Your task to perform on an android device: set the stopwatch Image 0: 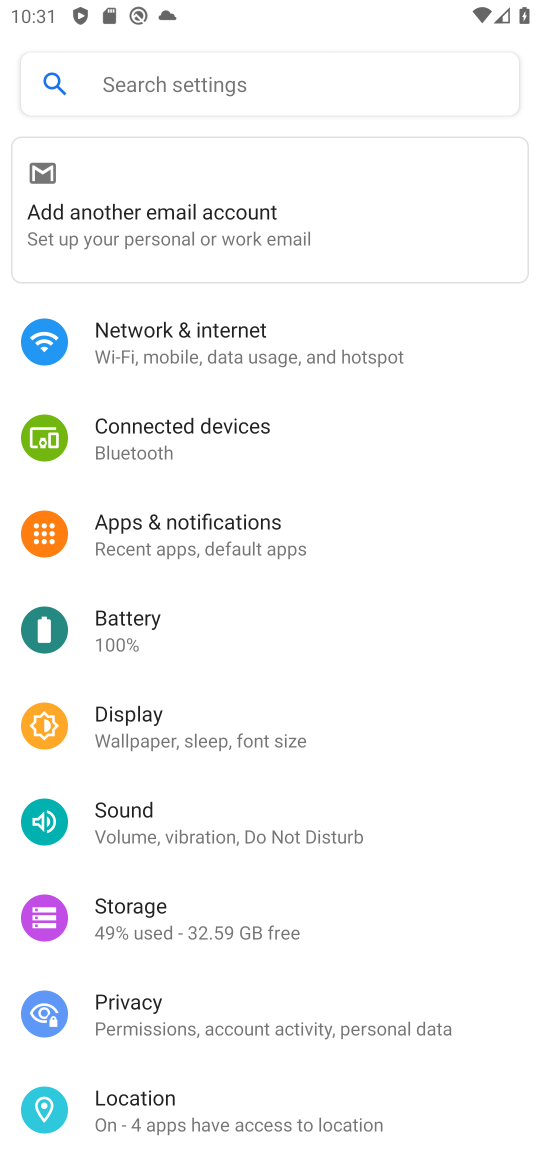
Step 0: press home button
Your task to perform on an android device: set the stopwatch Image 1: 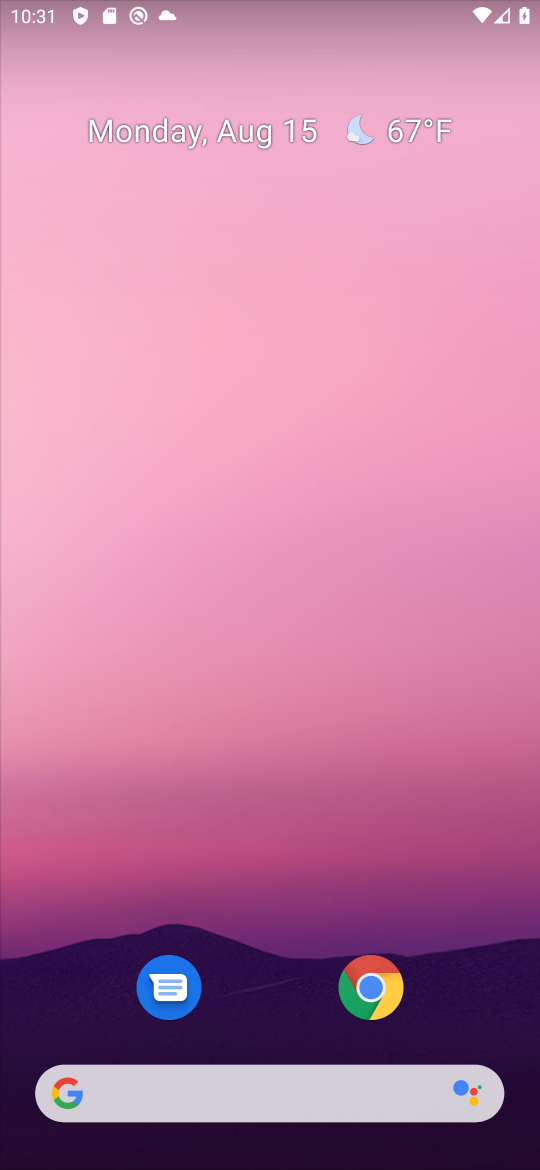
Step 1: drag from (313, 1058) to (202, 271)
Your task to perform on an android device: set the stopwatch Image 2: 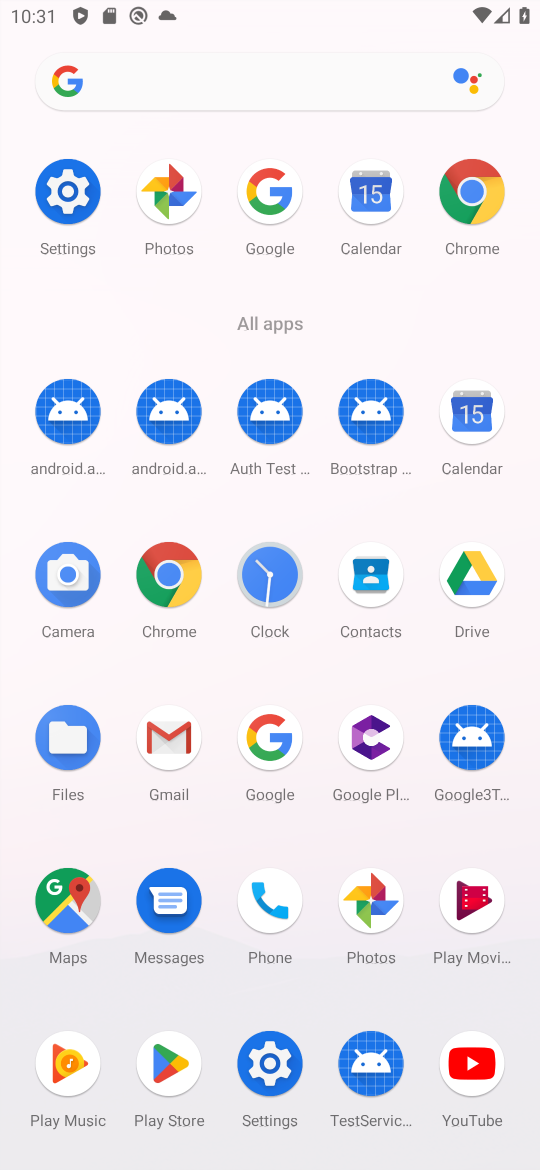
Step 2: click (262, 570)
Your task to perform on an android device: set the stopwatch Image 3: 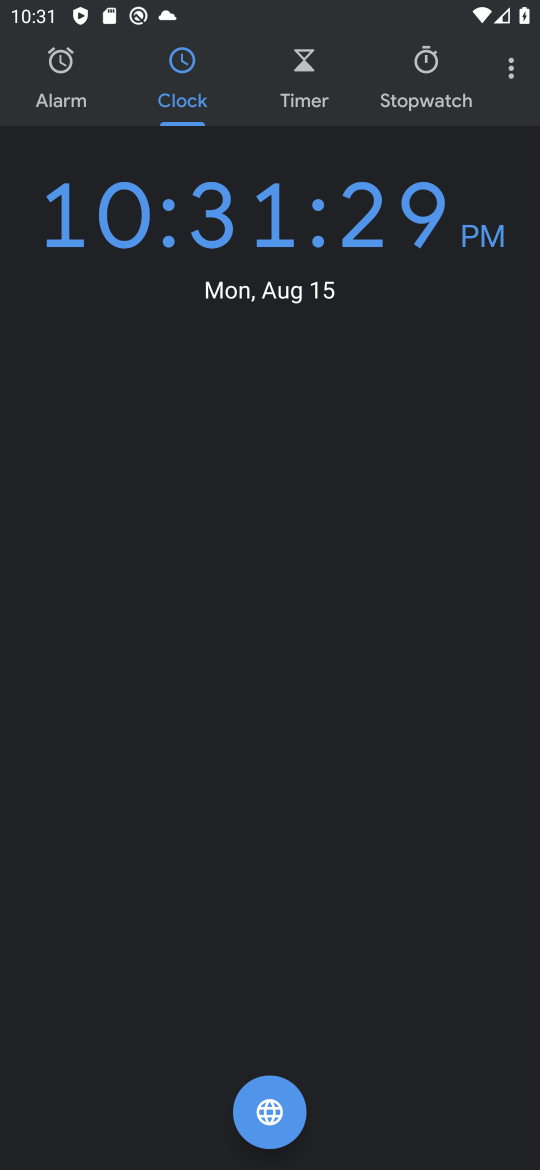
Step 3: click (390, 82)
Your task to perform on an android device: set the stopwatch Image 4: 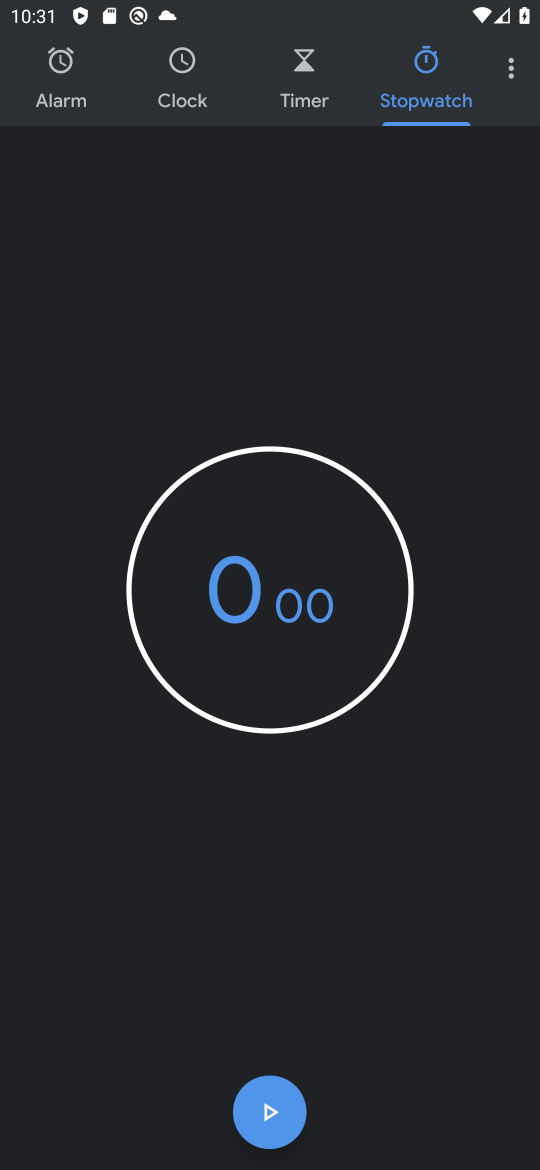
Step 4: task complete